Your task to perform on an android device: turn pop-ups on in chrome Image 0: 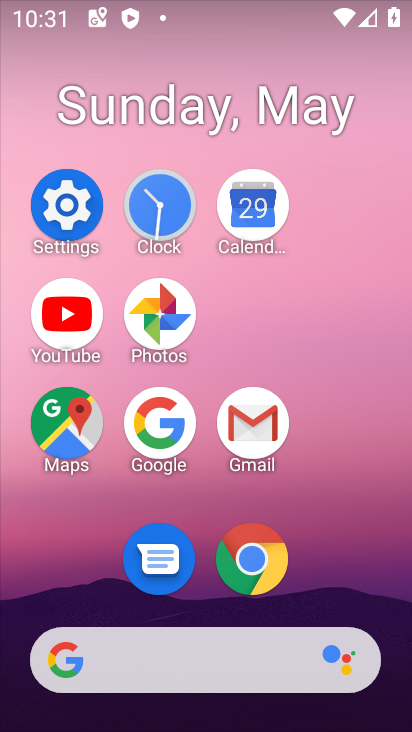
Step 0: click (240, 552)
Your task to perform on an android device: turn pop-ups on in chrome Image 1: 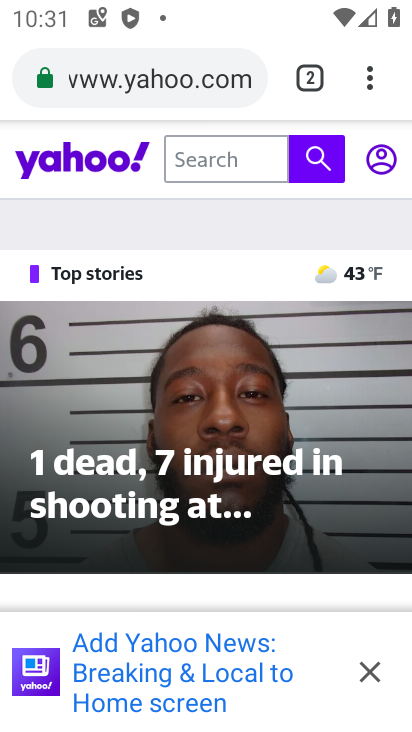
Step 1: click (388, 93)
Your task to perform on an android device: turn pop-ups on in chrome Image 2: 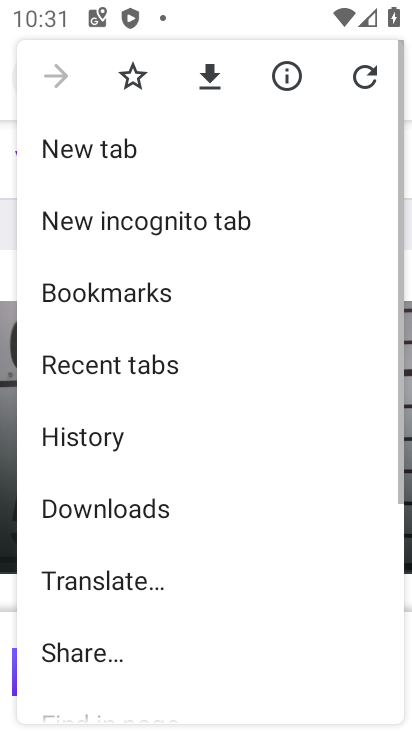
Step 2: drag from (179, 593) to (182, 177)
Your task to perform on an android device: turn pop-ups on in chrome Image 3: 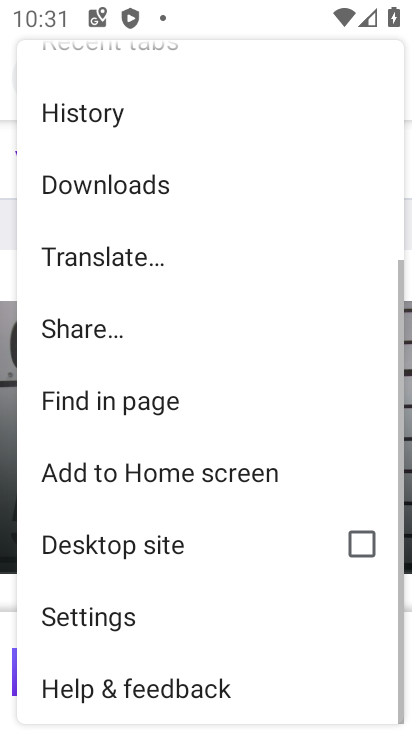
Step 3: click (173, 624)
Your task to perform on an android device: turn pop-ups on in chrome Image 4: 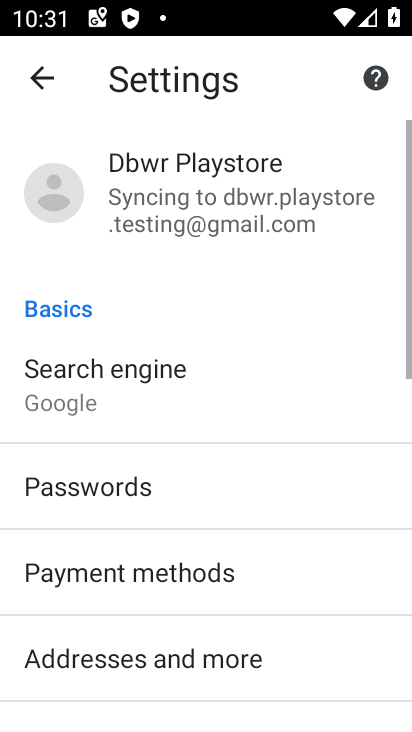
Step 4: drag from (173, 624) to (130, 198)
Your task to perform on an android device: turn pop-ups on in chrome Image 5: 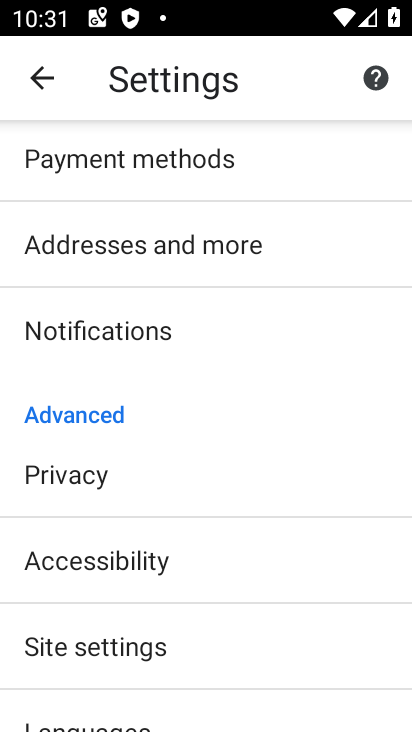
Step 5: drag from (149, 650) to (136, 269)
Your task to perform on an android device: turn pop-ups on in chrome Image 6: 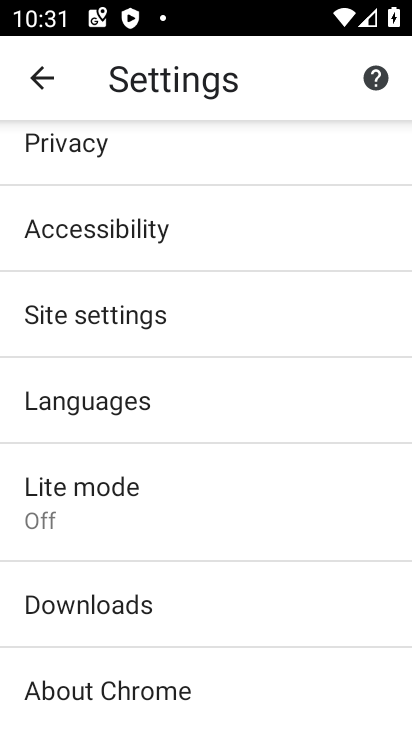
Step 6: click (185, 330)
Your task to perform on an android device: turn pop-ups on in chrome Image 7: 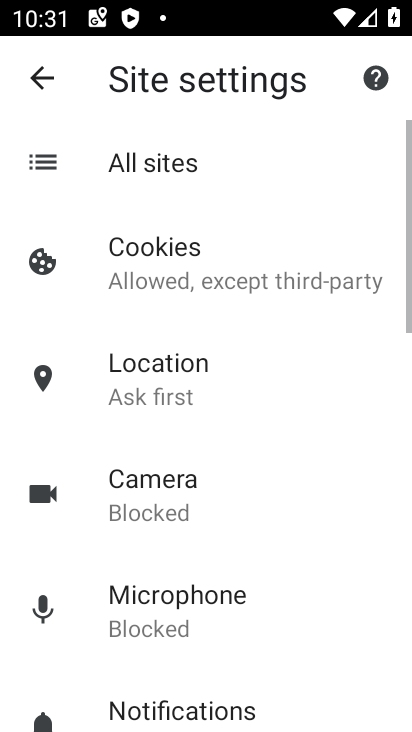
Step 7: drag from (217, 658) to (195, 231)
Your task to perform on an android device: turn pop-ups on in chrome Image 8: 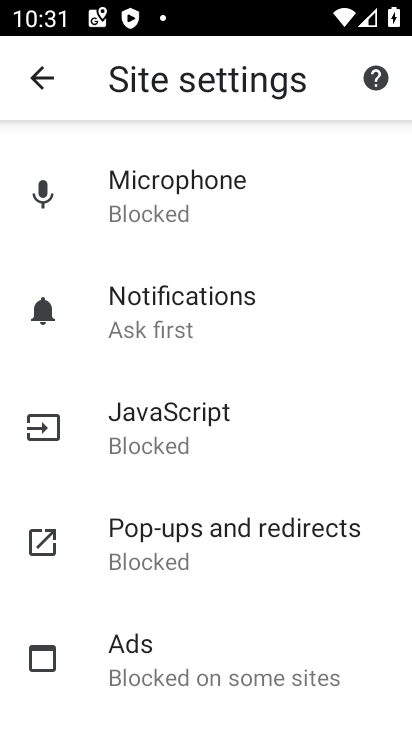
Step 8: click (208, 560)
Your task to perform on an android device: turn pop-ups on in chrome Image 9: 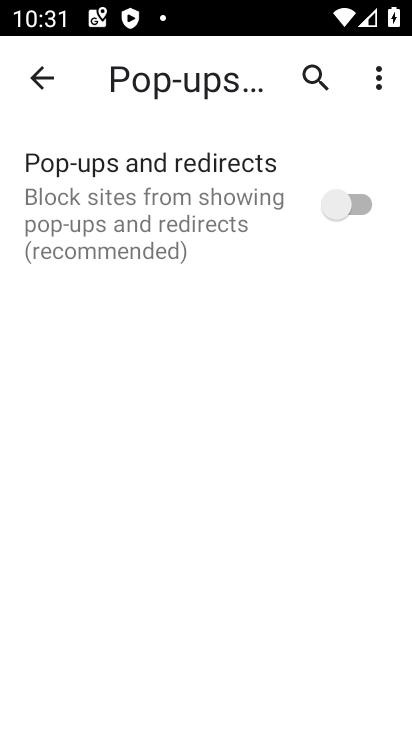
Step 9: click (354, 201)
Your task to perform on an android device: turn pop-ups on in chrome Image 10: 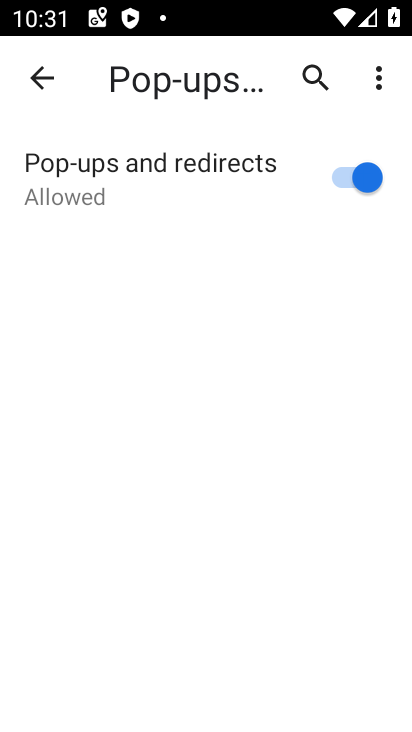
Step 10: task complete